Your task to perform on an android device: turn off smart reply in the gmail app Image 0: 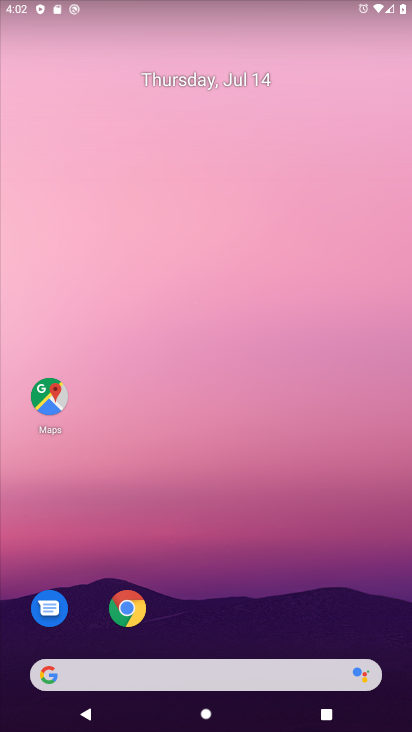
Step 0: drag from (317, 584) to (354, 0)
Your task to perform on an android device: turn off smart reply in the gmail app Image 1: 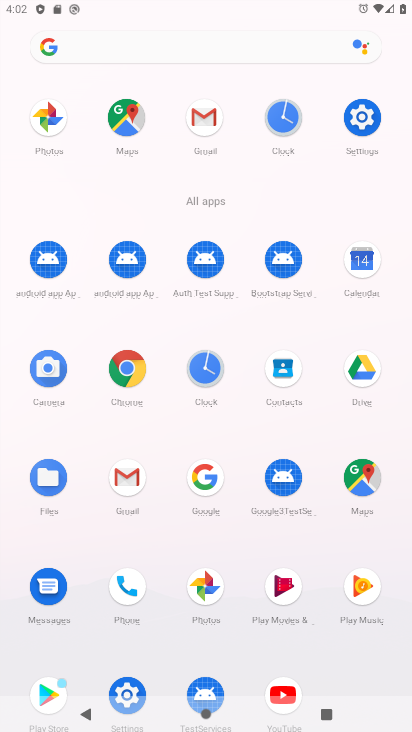
Step 1: click (197, 119)
Your task to perform on an android device: turn off smart reply in the gmail app Image 2: 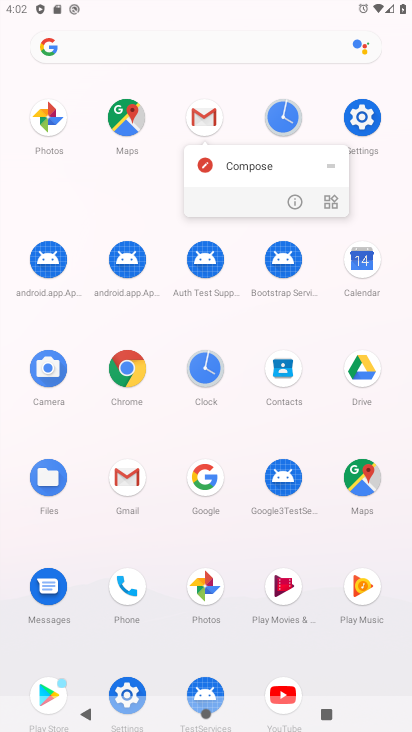
Step 2: click (200, 117)
Your task to perform on an android device: turn off smart reply in the gmail app Image 3: 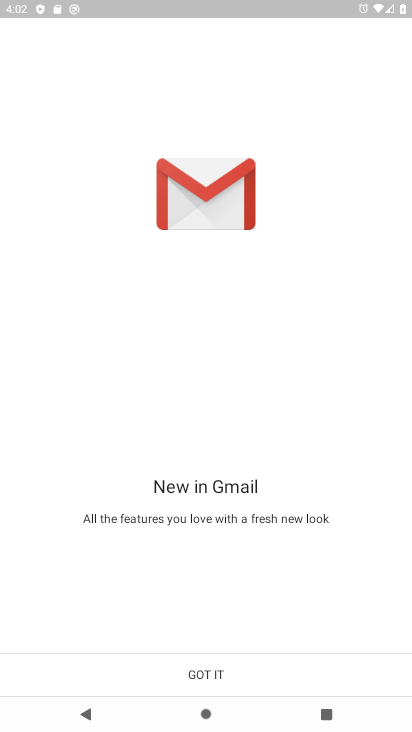
Step 3: click (223, 671)
Your task to perform on an android device: turn off smart reply in the gmail app Image 4: 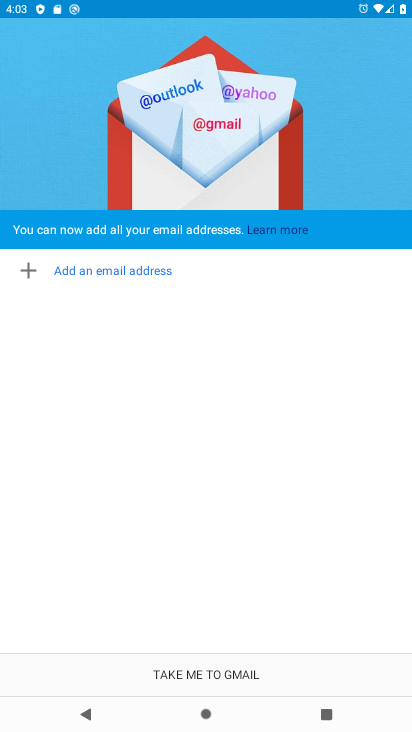
Step 4: click (223, 671)
Your task to perform on an android device: turn off smart reply in the gmail app Image 5: 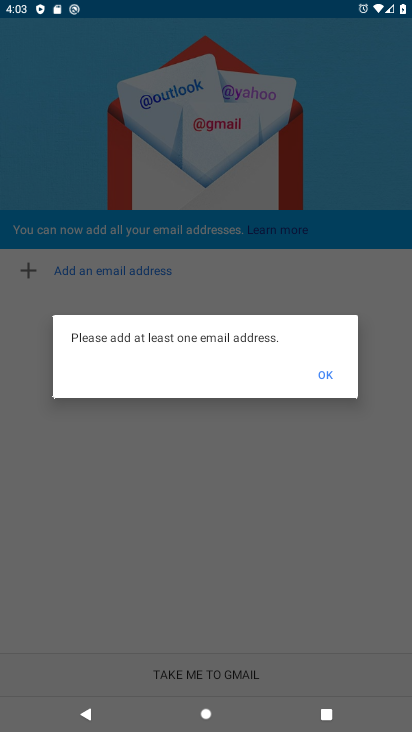
Step 5: click (331, 378)
Your task to perform on an android device: turn off smart reply in the gmail app Image 6: 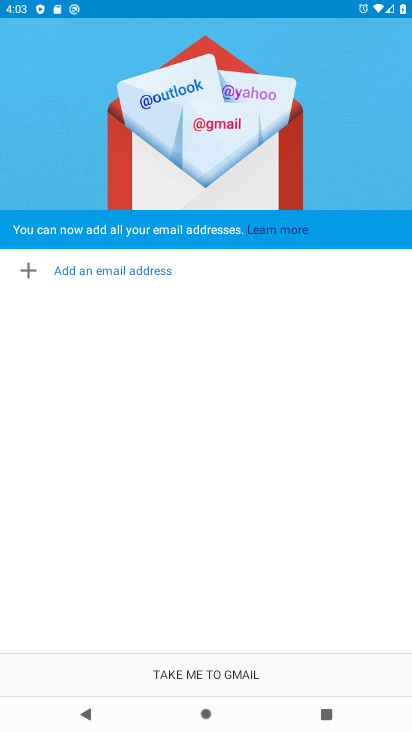
Step 6: click (238, 677)
Your task to perform on an android device: turn off smart reply in the gmail app Image 7: 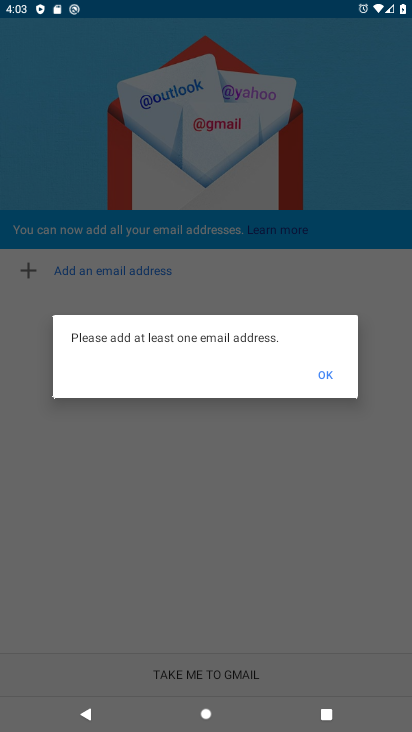
Step 7: task complete